Your task to perform on an android device: check the backup settings in the google photos Image 0: 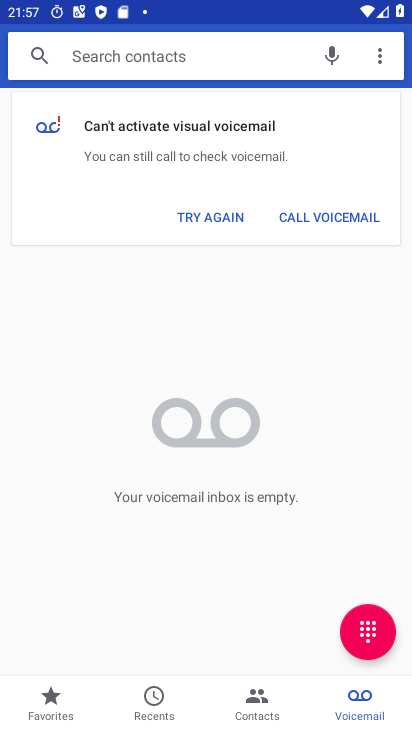
Step 0: press home button
Your task to perform on an android device: check the backup settings in the google photos Image 1: 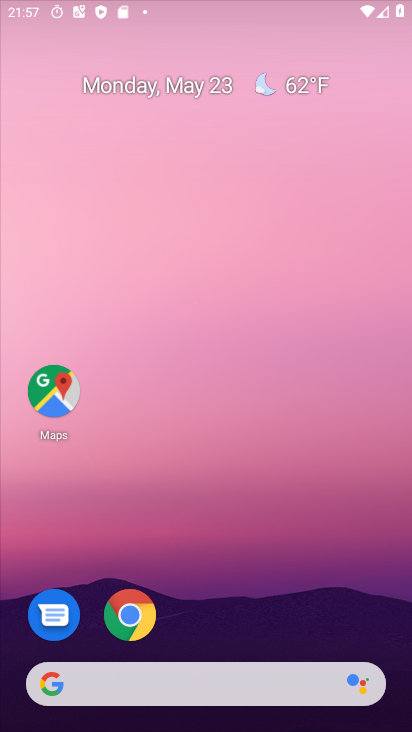
Step 1: drag from (227, 622) to (253, 134)
Your task to perform on an android device: check the backup settings in the google photos Image 2: 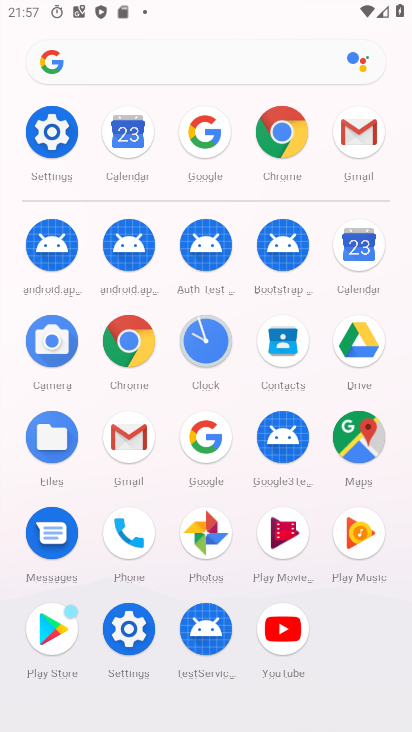
Step 2: click (212, 533)
Your task to perform on an android device: check the backup settings in the google photos Image 3: 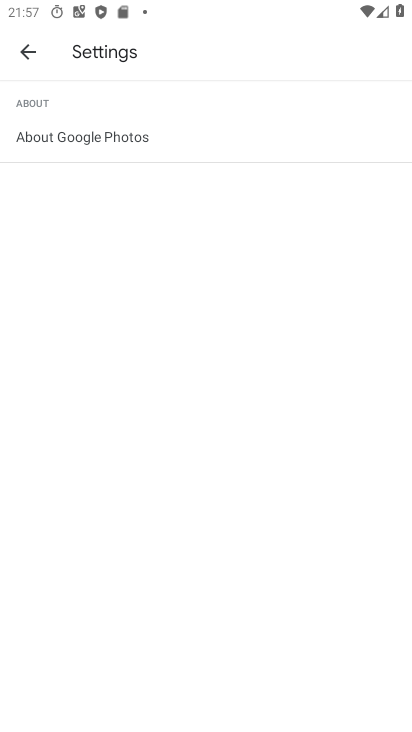
Step 3: press back button
Your task to perform on an android device: check the backup settings in the google photos Image 4: 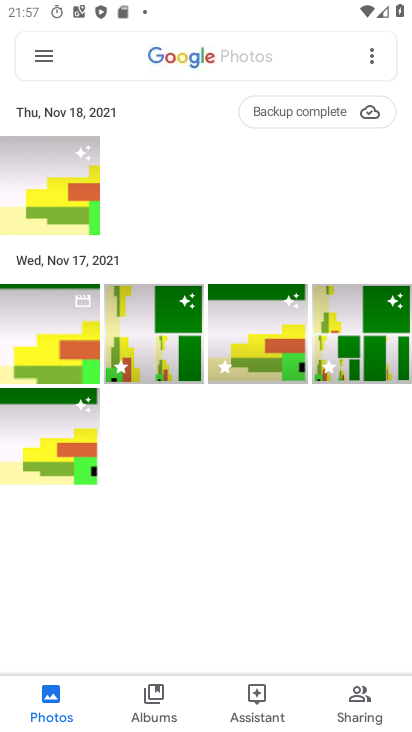
Step 4: click (53, 43)
Your task to perform on an android device: check the backup settings in the google photos Image 5: 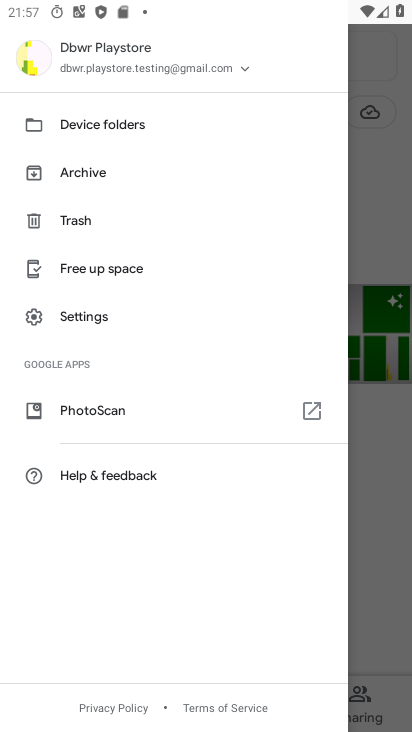
Step 5: click (116, 322)
Your task to perform on an android device: check the backup settings in the google photos Image 6: 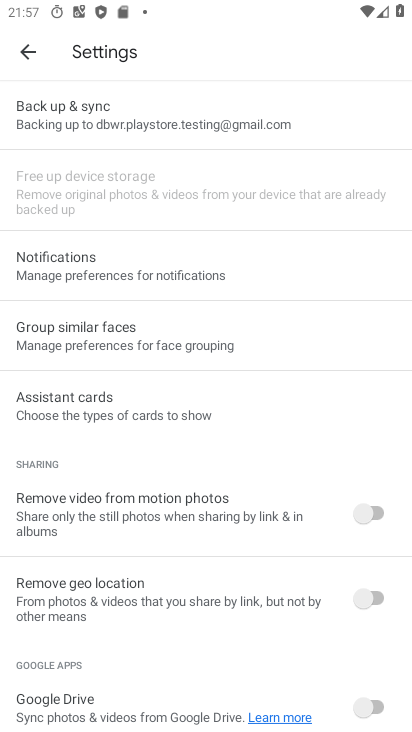
Step 6: click (158, 119)
Your task to perform on an android device: check the backup settings in the google photos Image 7: 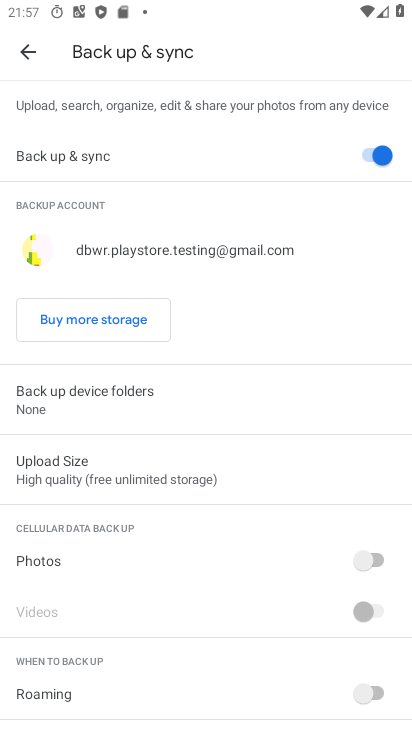
Step 7: task complete